Your task to perform on an android device: turn pop-ups on in chrome Image 0: 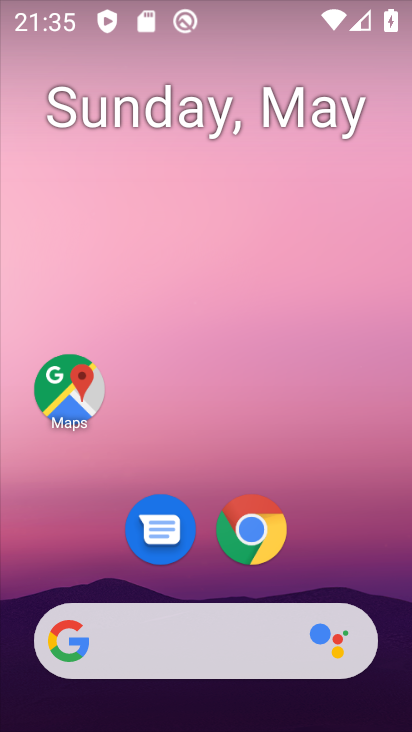
Step 0: click (242, 526)
Your task to perform on an android device: turn pop-ups on in chrome Image 1: 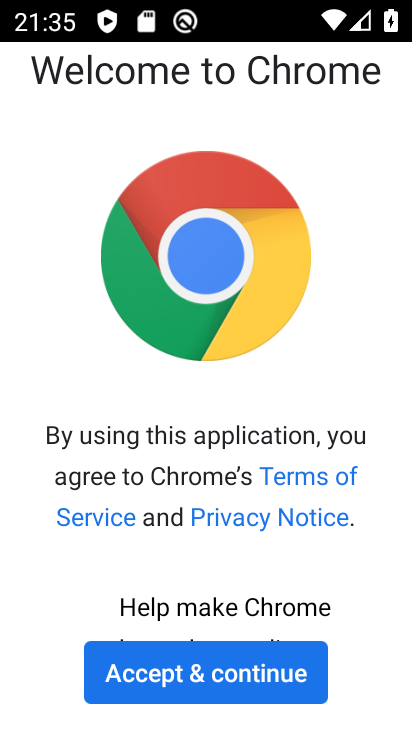
Step 1: click (174, 672)
Your task to perform on an android device: turn pop-ups on in chrome Image 2: 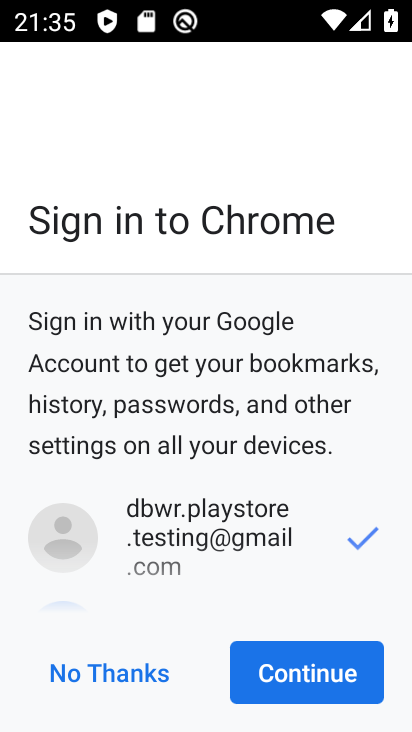
Step 2: click (344, 682)
Your task to perform on an android device: turn pop-ups on in chrome Image 3: 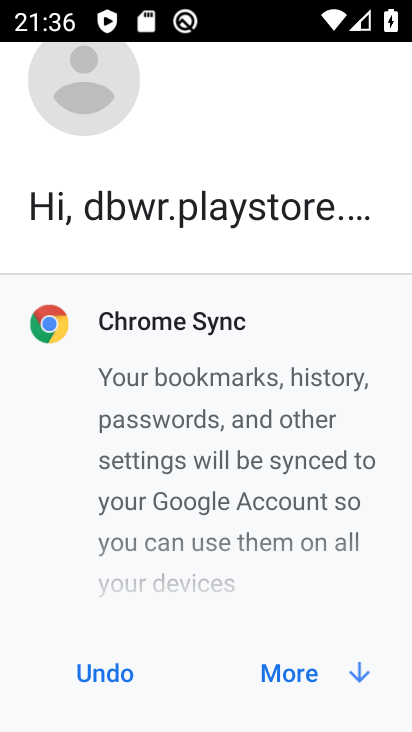
Step 3: click (339, 674)
Your task to perform on an android device: turn pop-ups on in chrome Image 4: 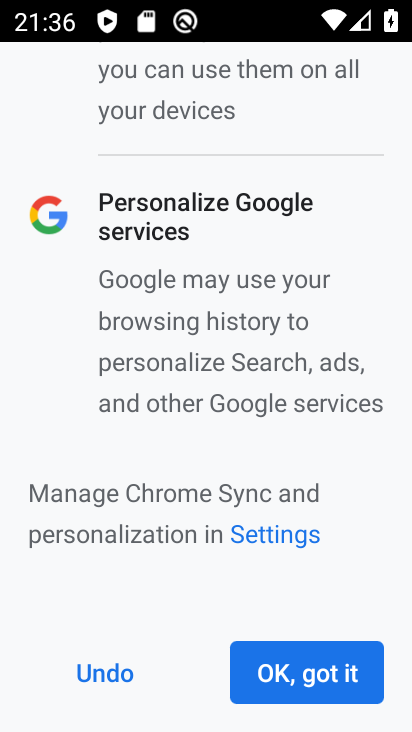
Step 4: click (308, 678)
Your task to perform on an android device: turn pop-ups on in chrome Image 5: 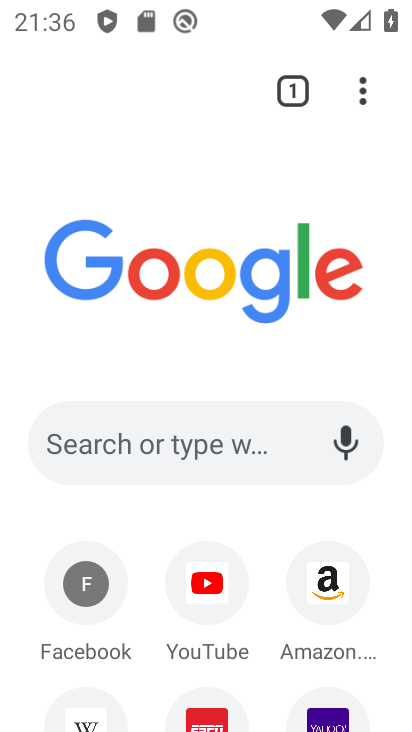
Step 5: click (380, 128)
Your task to perform on an android device: turn pop-ups on in chrome Image 6: 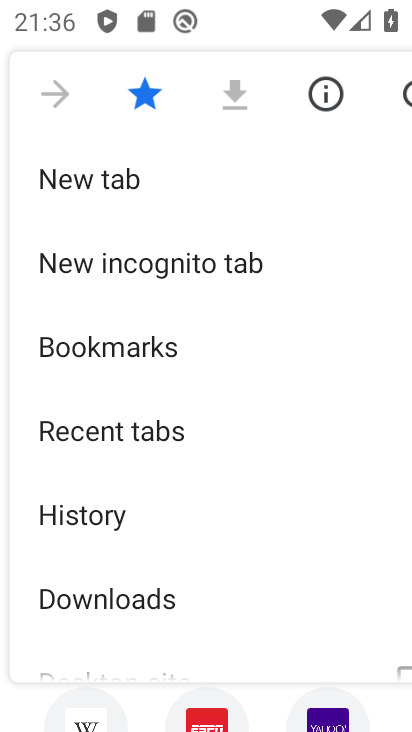
Step 6: drag from (105, 560) to (213, 137)
Your task to perform on an android device: turn pop-ups on in chrome Image 7: 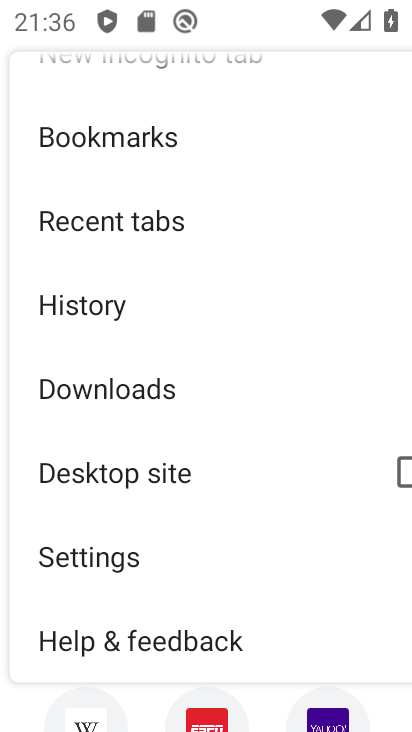
Step 7: click (141, 560)
Your task to perform on an android device: turn pop-ups on in chrome Image 8: 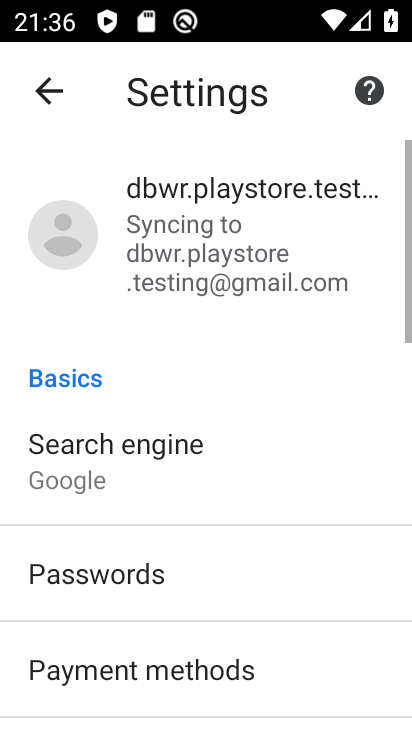
Step 8: drag from (178, 622) to (195, 195)
Your task to perform on an android device: turn pop-ups on in chrome Image 9: 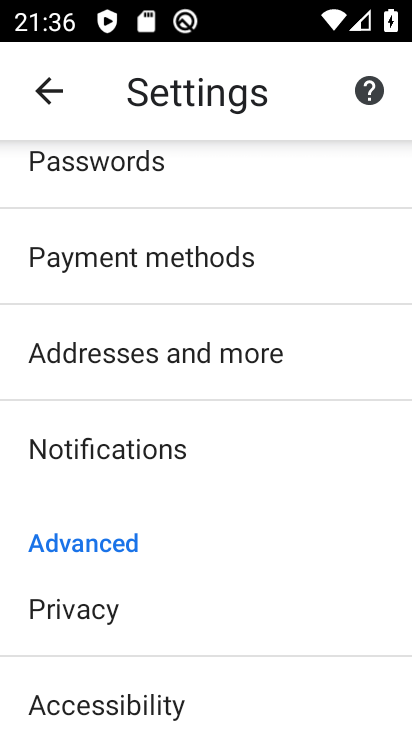
Step 9: drag from (173, 646) to (182, 141)
Your task to perform on an android device: turn pop-ups on in chrome Image 10: 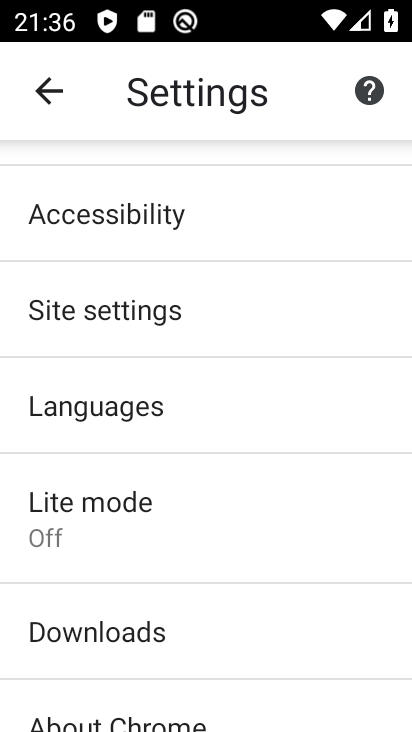
Step 10: click (129, 319)
Your task to perform on an android device: turn pop-ups on in chrome Image 11: 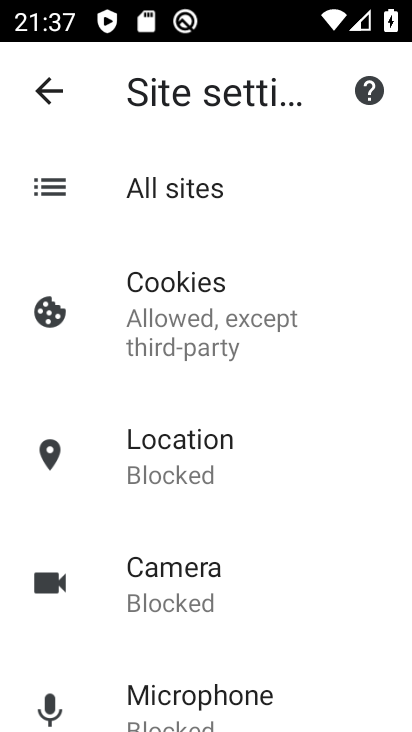
Step 11: drag from (234, 665) to (241, 312)
Your task to perform on an android device: turn pop-ups on in chrome Image 12: 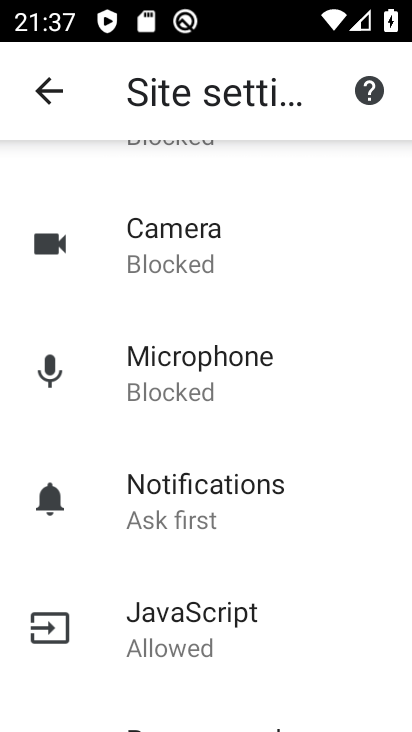
Step 12: drag from (199, 598) to (206, 249)
Your task to perform on an android device: turn pop-ups on in chrome Image 13: 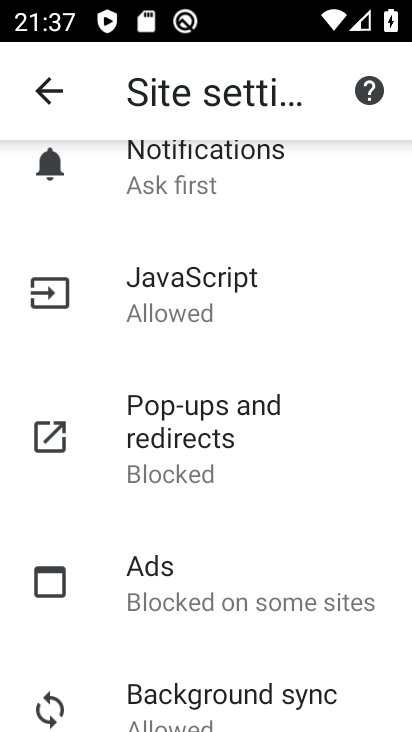
Step 13: click (210, 441)
Your task to perform on an android device: turn pop-ups on in chrome Image 14: 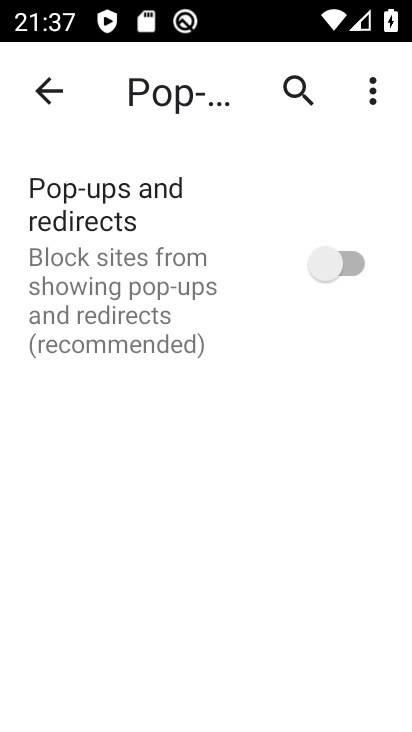
Step 14: click (338, 268)
Your task to perform on an android device: turn pop-ups on in chrome Image 15: 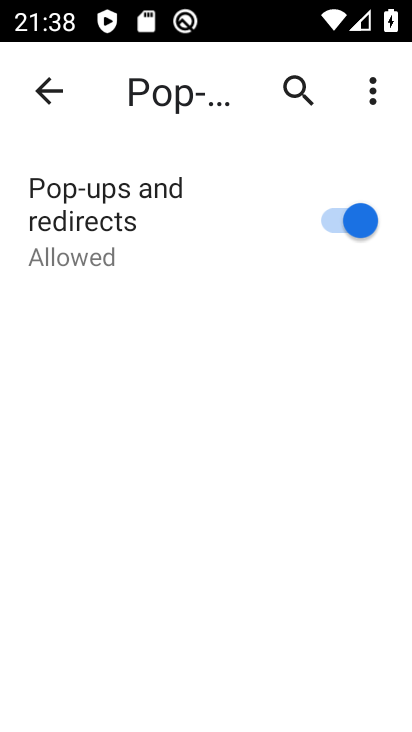
Step 15: task complete